Your task to perform on an android device: open chrome privacy settings Image 0: 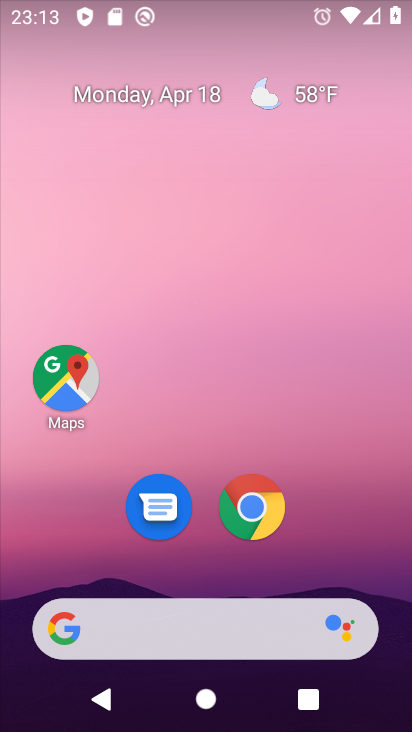
Step 0: click (252, 506)
Your task to perform on an android device: open chrome privacy settings Image 1: 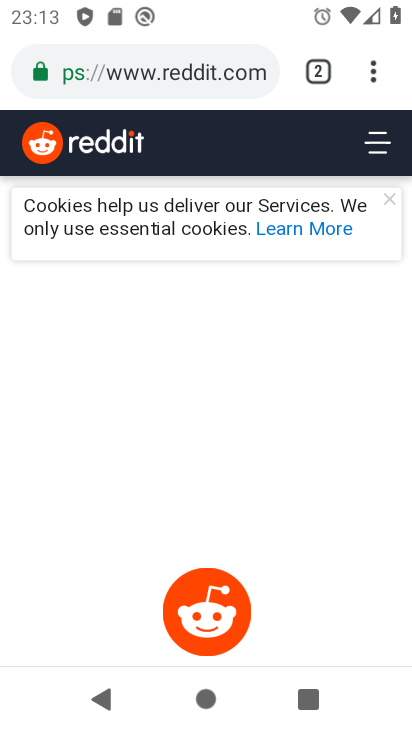
Step 1: click (367, 67)
Your task to perform on an android device: open chrome privacy settings Image 2: 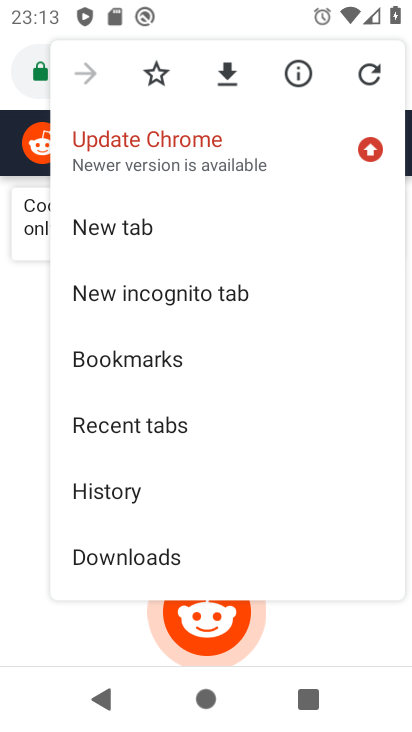
Step 2: drag from (173, 503) to (223, 144)
Your task to perform on an android device: open chrome privacy settings Image 3: 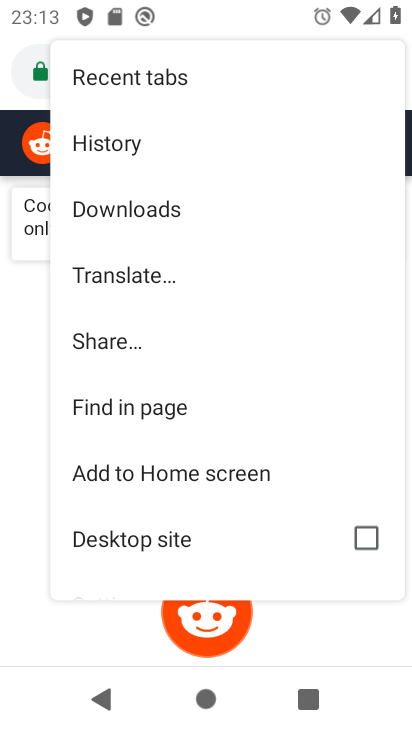
Step 3: drag from (111, 540) to (223, 64)
Your task to perform on an android device: open chrome privacy settings Image 4: 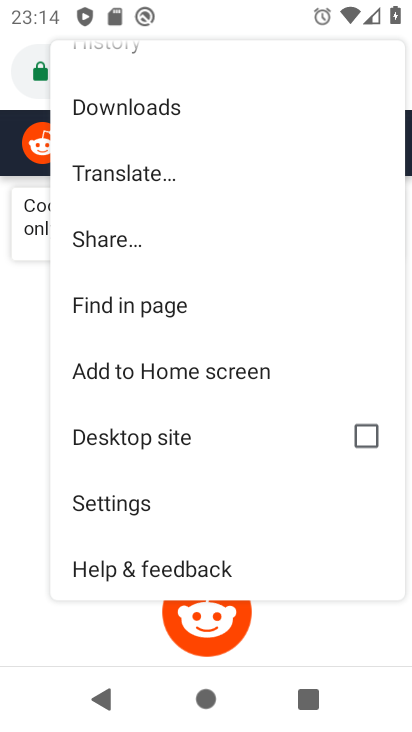
Step 4: click (136, 491)
Your task to perform on an android device: open chrome privacy settings Image 5: 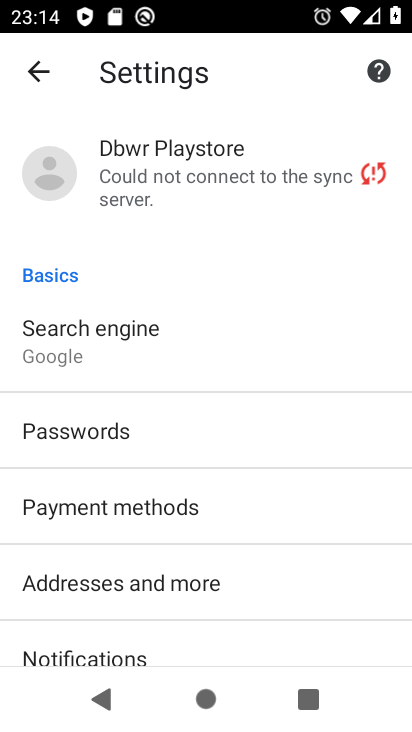
Step 5: drag from (125, 611) to (189, 163)
Your task to perform on an android device: open chrome privacy settings Image 6: 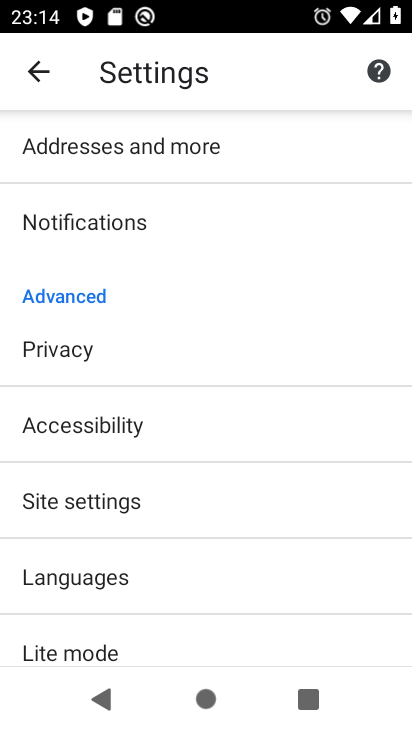
Step 6: click (141, 355)
Your task to perform on an android device: open chrome privacy settings Image 7: 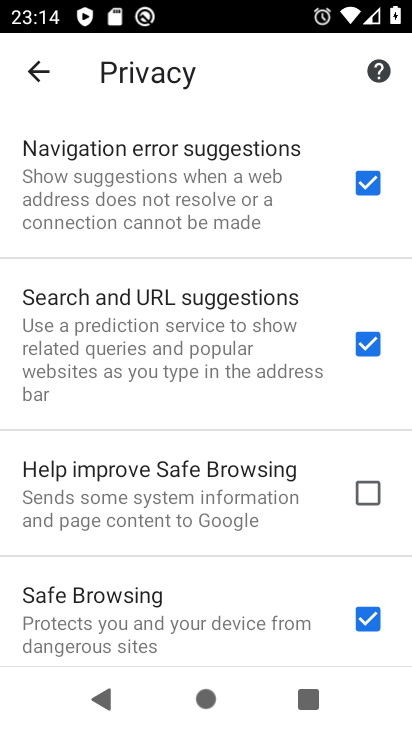
Step 7: task complete